Your task to perform on an android device: Go to accessibility settings Image 0: 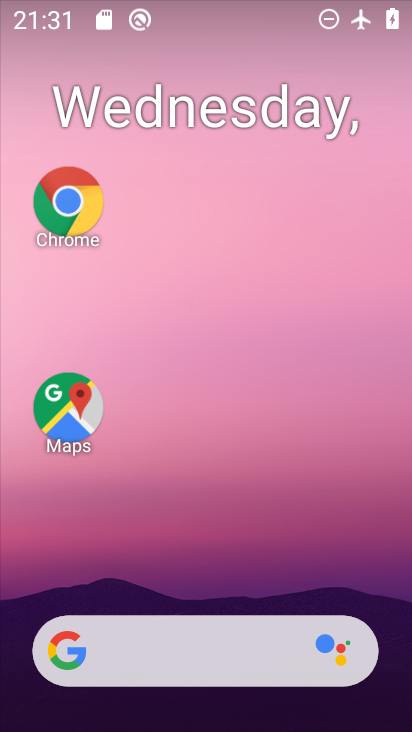
Step 0: drag from (187, 603) to (44, 159)
Your task to perform on an android device: Go to accessibility settings Image 1: 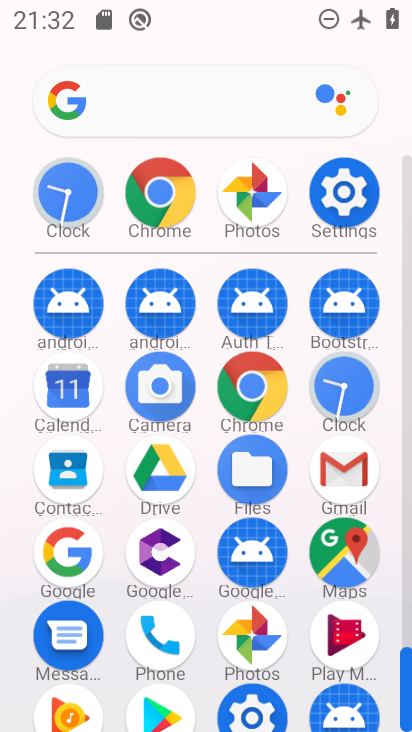
Step 1: click (239, 718)
Your task to perform on an android device: Go to accessibility settings Image 2: 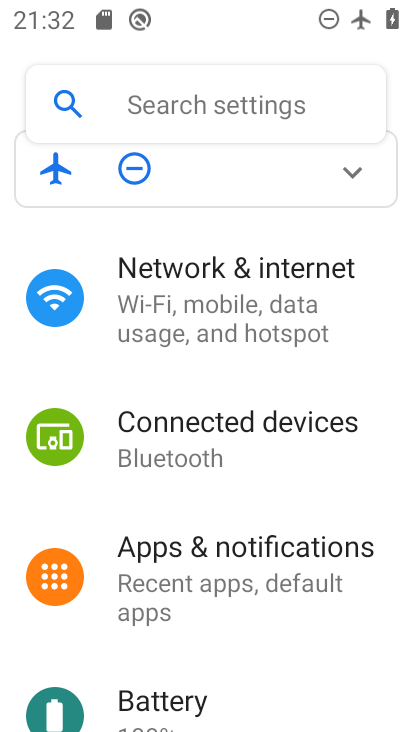
Step 2: click (239, 718)
Your task to perform on an android device: Go to accessibility settings Image 3: 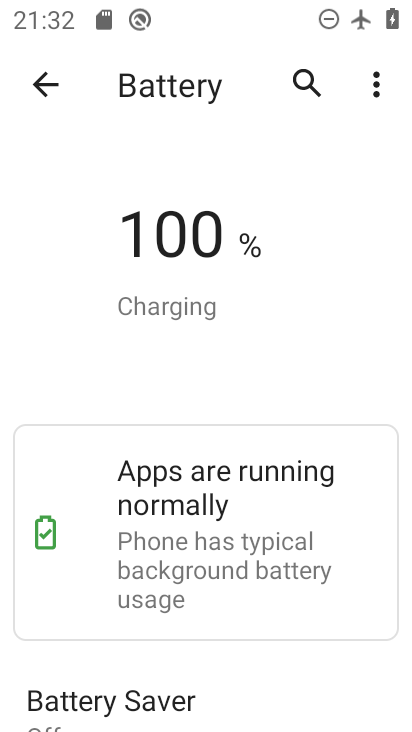
Step 3: click (28, 72)
Your task to perform on an android device: Go to accessibility settings Image 4: 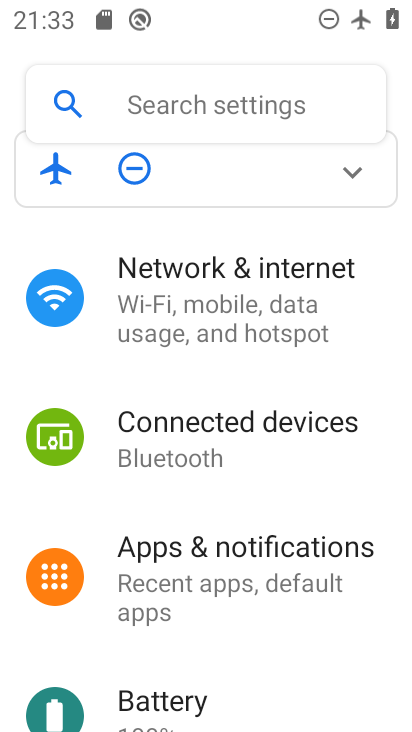
Step 4: drag from (172, 640) to (11, 147)
Your task to perform on an android device: Go to accessibility settings Image 5: 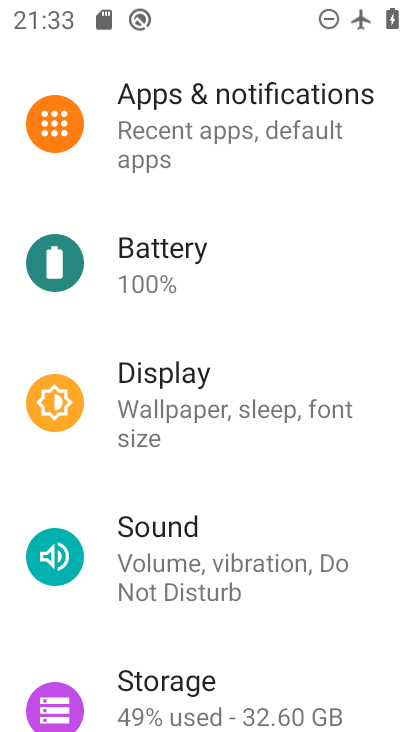
Step 5: drag from (169, 577) to (19, 93)
Your task to perform on an android device: Go to accessibility settings Image 6: 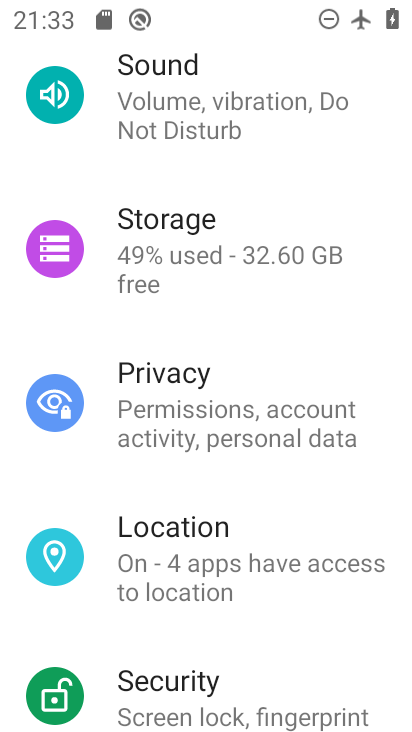
Step 6: drag from (226, 615) to (113, 28)
Your task to perform on an android device: Go to accessibility settings Image 7: 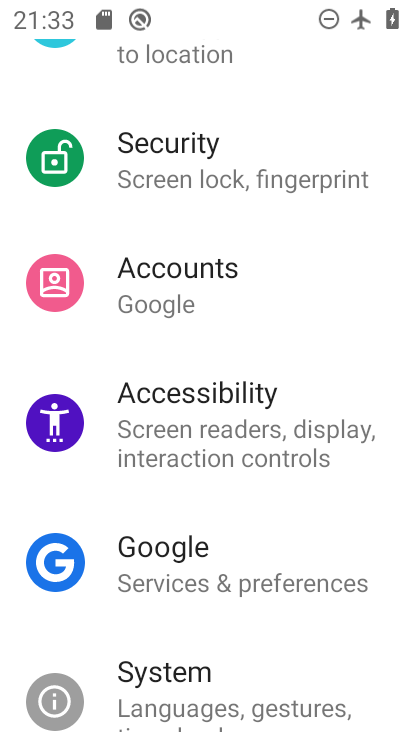
Step 7: click (217, 407)
Your task to perform on an android device: Go to accessibility settings Image 8: 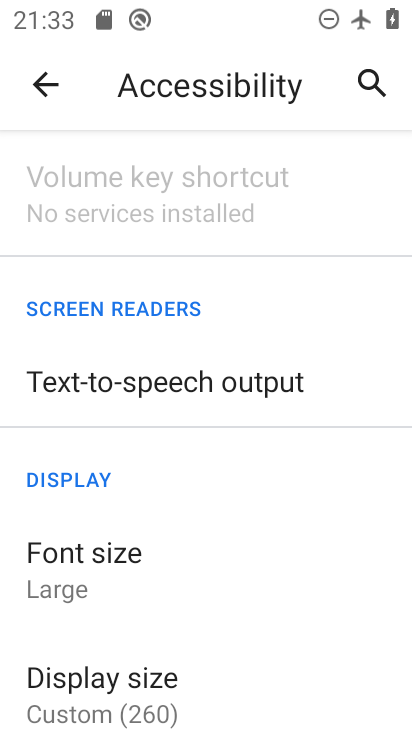
Step 8: task complete